Your task to perform on an android device: Open Chrome and go to settings Image 0: 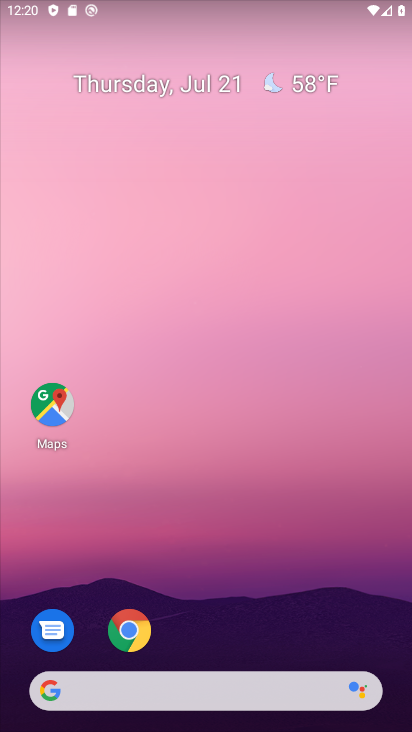
Step 0: click (129, 630)
Your task to perform on an android device: Open Chrome and go to settings Image 1: 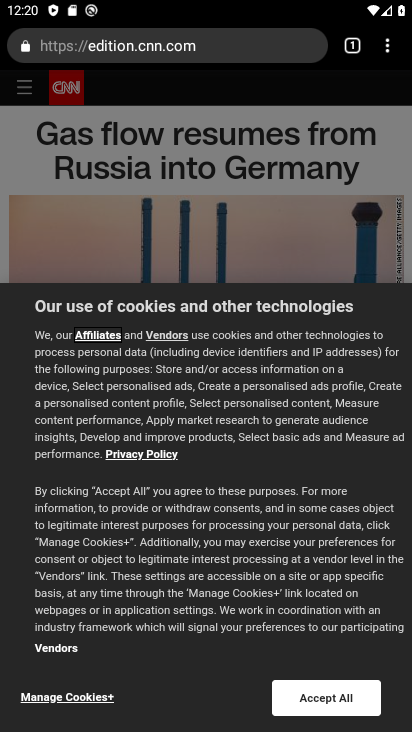
Step 1: task complete